Your task to perform on an android device: Open CNN.com Image 0: 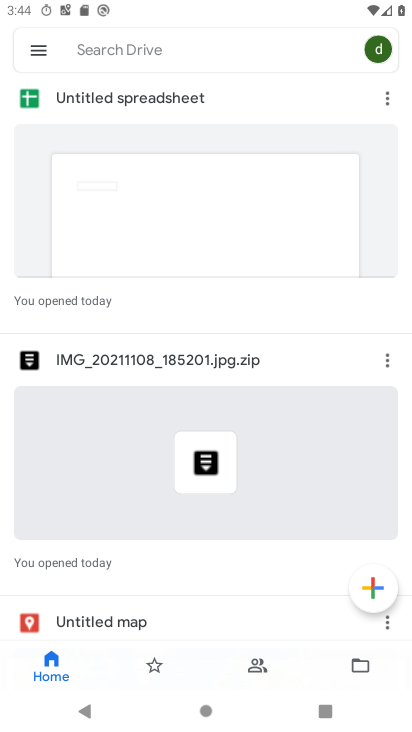
Step 0: press home button
Your task to perform on an android device: Open CNN.com Image 1: 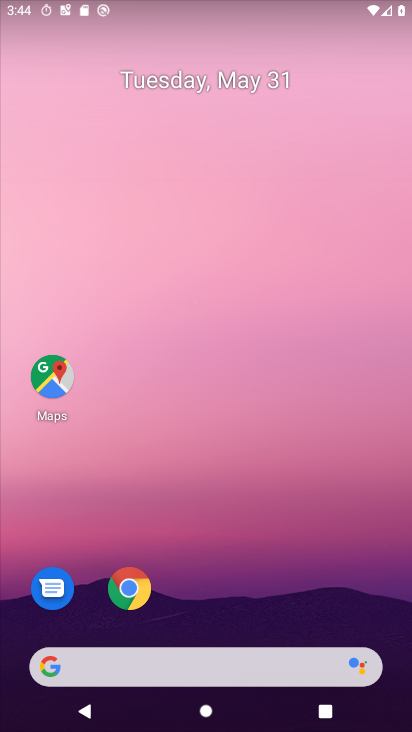
Step 1: drag from (224, 639) to (278, 165)
Your task to perform on an android device: Open CNN.com Image 2: 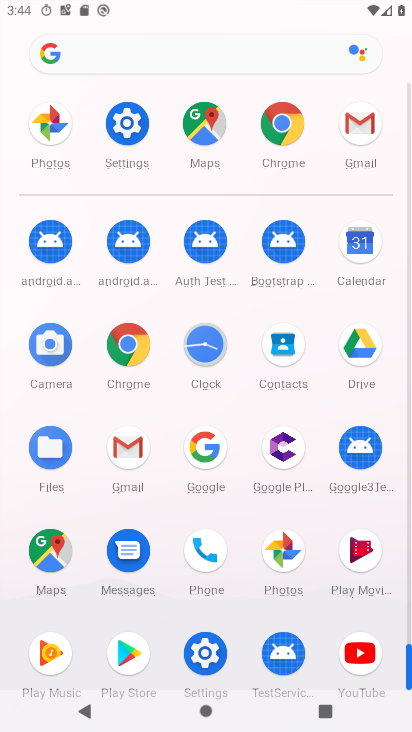
Step 2: click (294, 161)
Your task to perform on an android device: Open CNN.com Image 3: 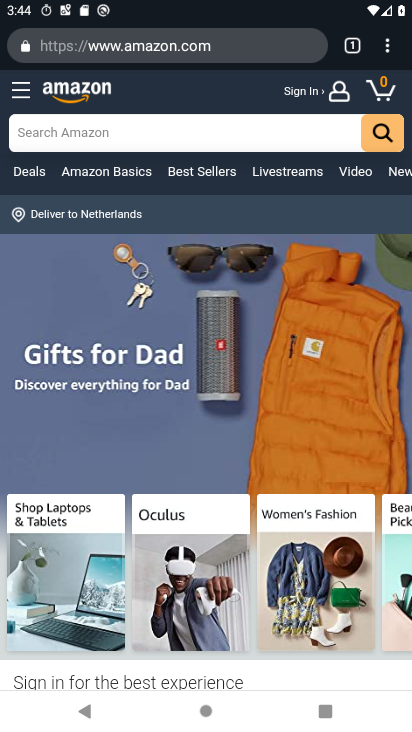
Step 3: click (215, 51)
Your task to perform on an android device: Open CNN.com Image 4: 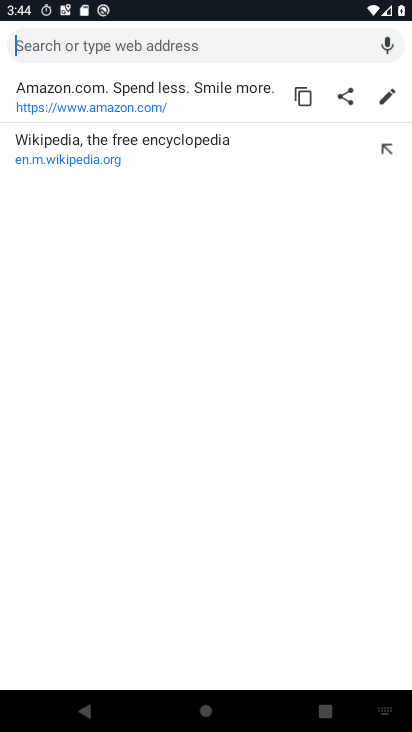
Step 4: type "cnn"
Your task to perform on an android device: Open CNN.com Image 5: 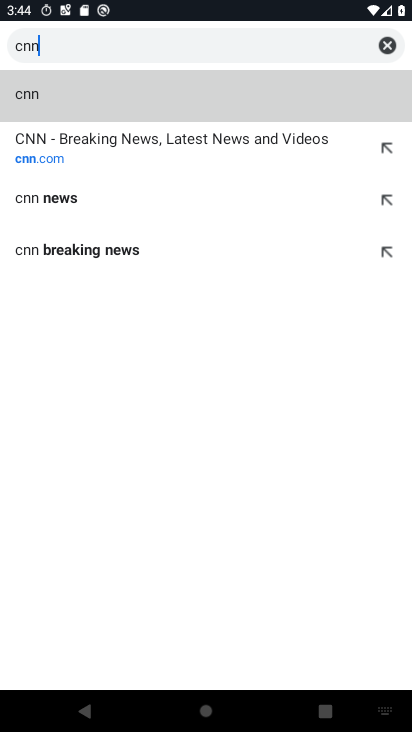
Step 5: click (308, 157)
Your task to perform on an android device: Open CNN.com Image 6: 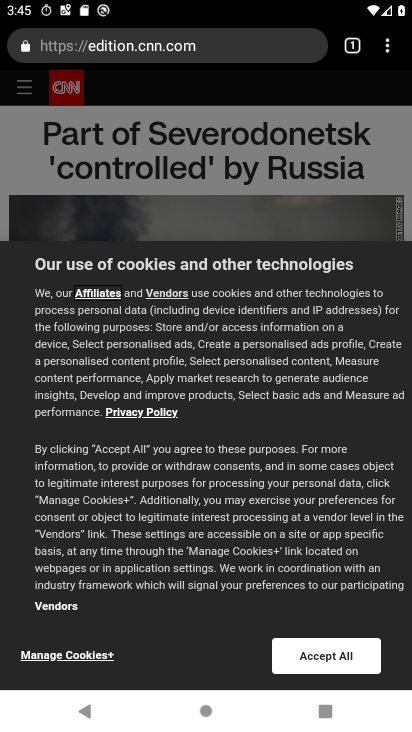
Step 6: task complete